Your task to perform on an android device: Check the weather Image 0: 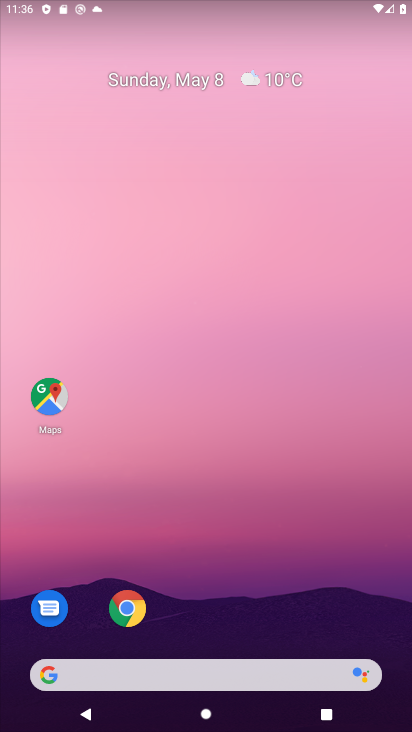
Step 0: click (148, 678)
Your task to perform on an android device: Check the weather Image 1: 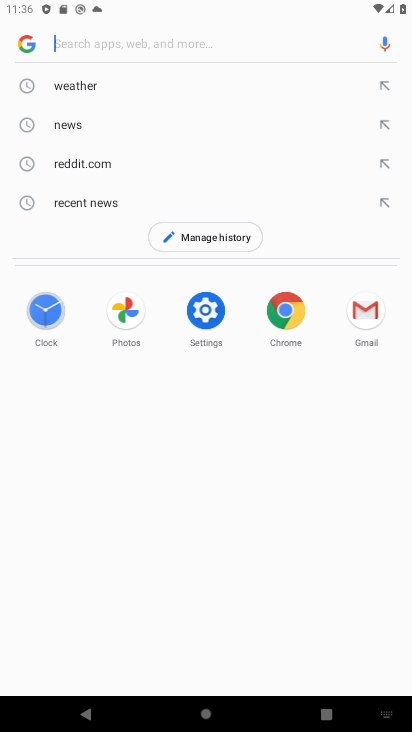
Step 1: click (125, 88)
Your task to perform on an android device: Check the weather Image 2: 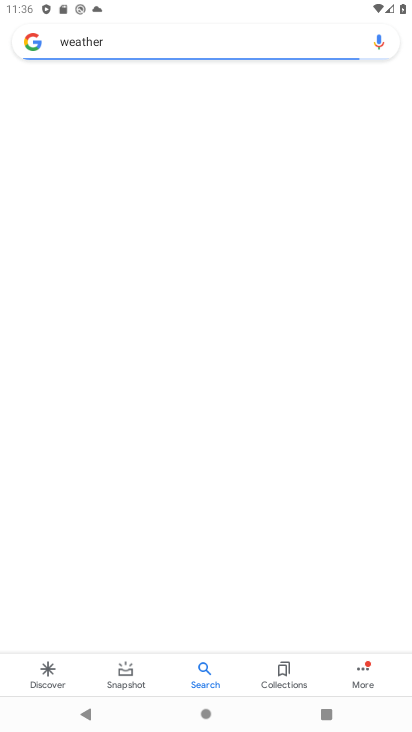
Step 2: task complete